Your task to perform on an android device: Open network settings Image 0: 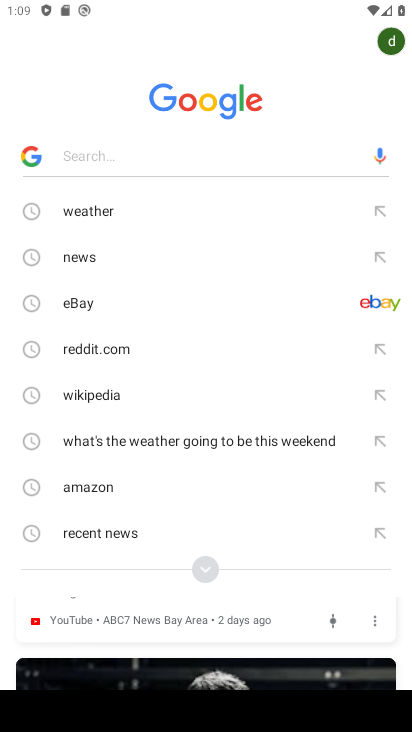
Step 0: press home button
Your task to perform on an android device: Open network settings Image 1: 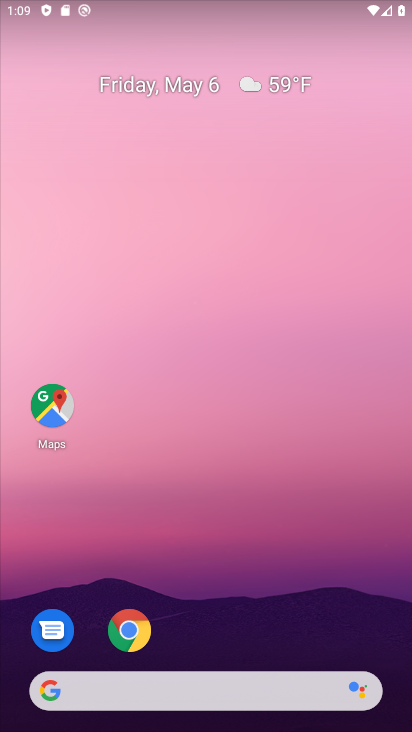
Step 1: drag from (202, 646) to (241, 34)
Your task to perform on an android device: Open network settings Image 2: 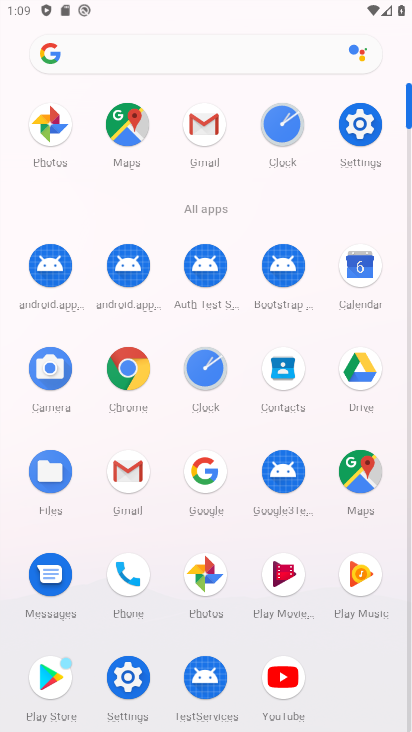
Step 2: click (349, 132)
Your task to perform on an android device: Open network settings Image 3: 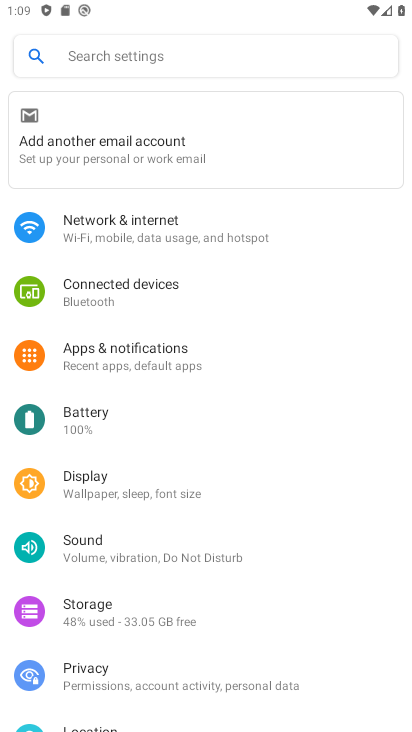
Step 3: click (185, 237)
Your task to perform on an android device: Open network settings Image 4: 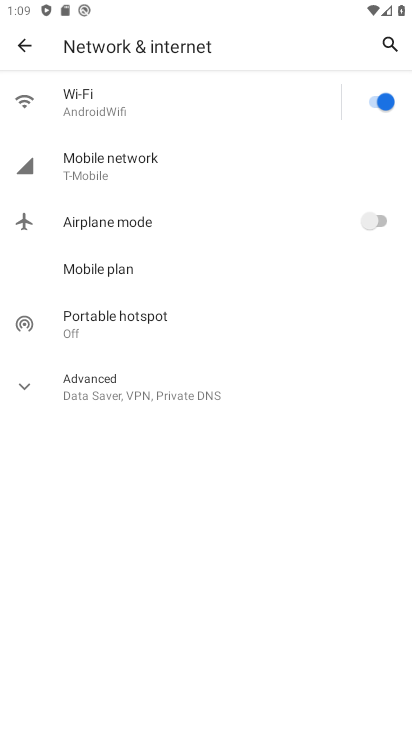
Step 4: task complete